Your task to perform on an android device: Open display settings Image 0: 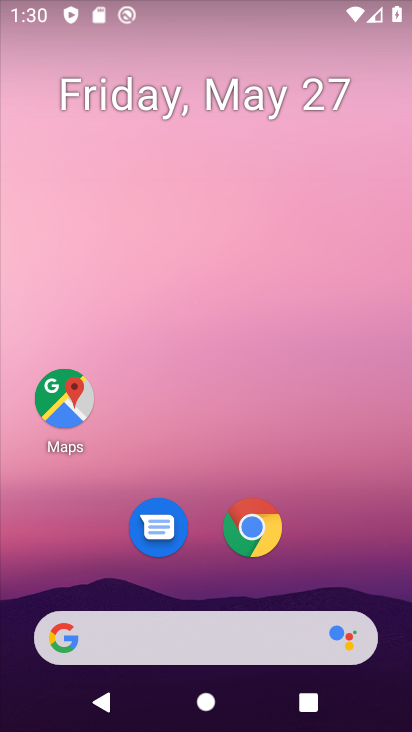
Step 0: drag from (233, 390) to (290, 90)
Your task to perform on an android device: Open display settings Image 1: 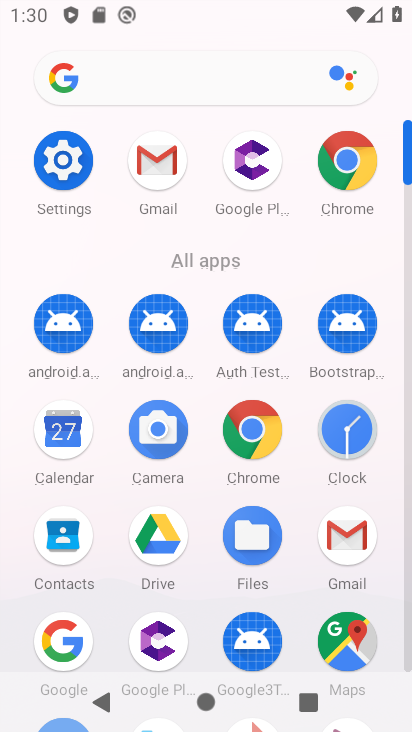
Step 1: click (62, 159)
Your task to perform on an android device: Open display settings Image 2: 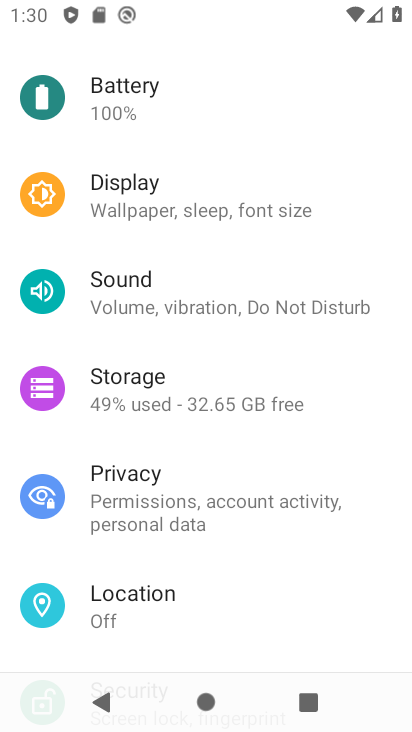
Step 2: click (220, 209)
Your task to perform on an android device: Open display settings Image 3: 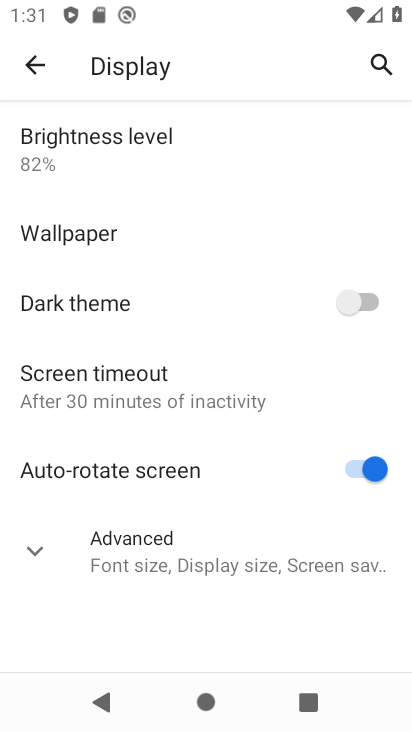
Step 3: task complete